Your task to perform on an android device: turn pop-ups off in chrome Image 0: 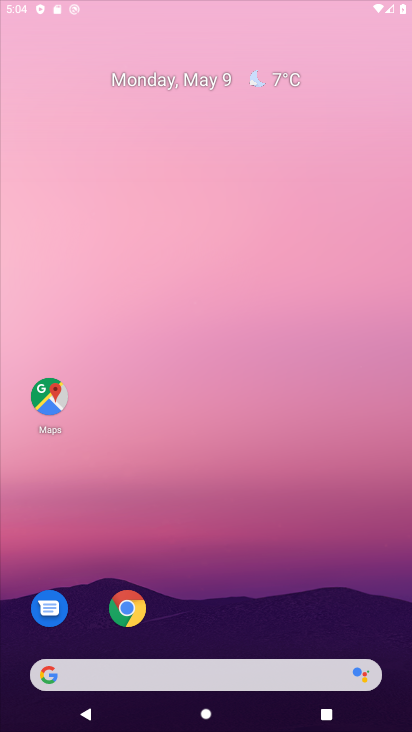
Step 0: click (129, 607)
Your task to perform on an android device: turn pop-ups off in chrome Image 1: 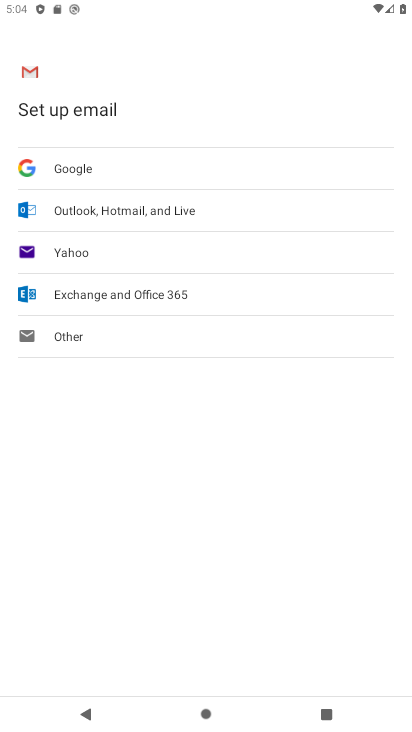
Step 1: press home button
Your task to perform on an android device: turn pop-ups off in chrome Image 2: 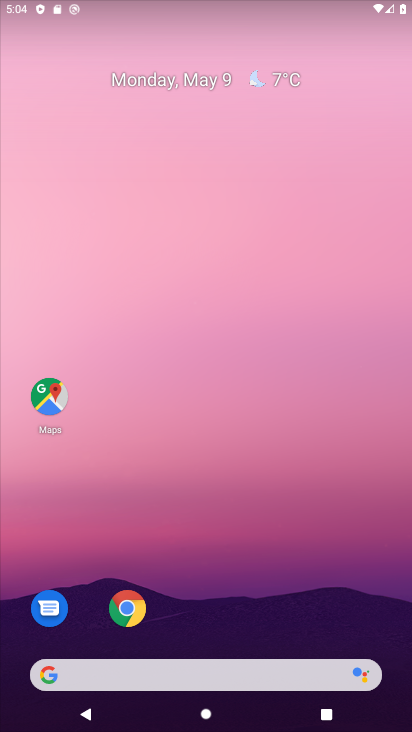
Step 2: click (126, 607)
Your task to perform on an android device: turn pop-ups off in chrome Image 3: 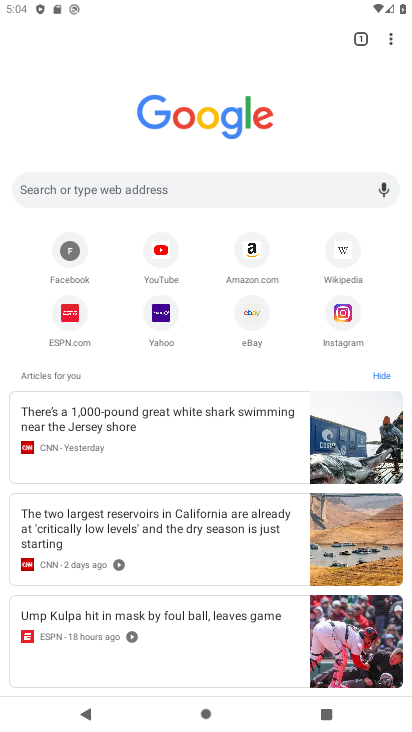
Step 3: click (377, 37)
Your task to perform on an android device: turn pop-ups off in chrome Image 4: 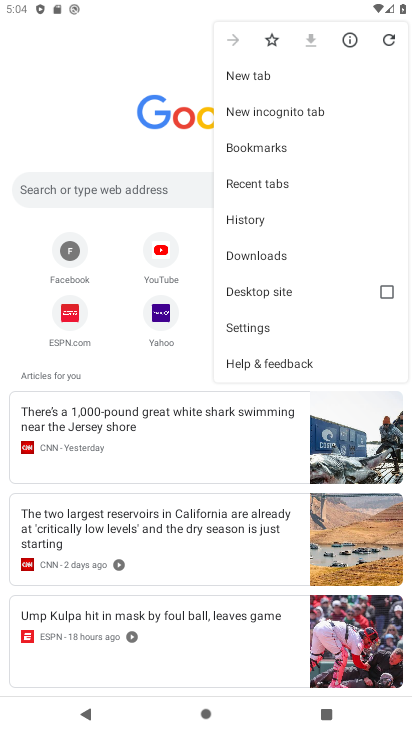
Step 4: click (284, 333)
Your task to perform on an android device: turn pop-ups off in chrome Image 5: 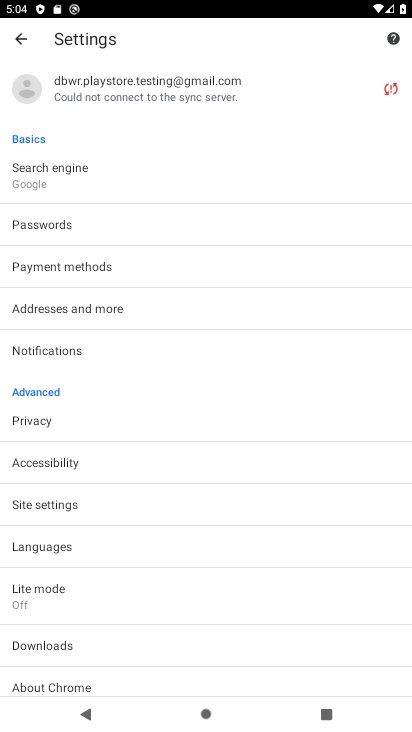
Step 5: click (55, 496)
Your task to perform on an android device: turn pop-ups off in chrome Image 6: 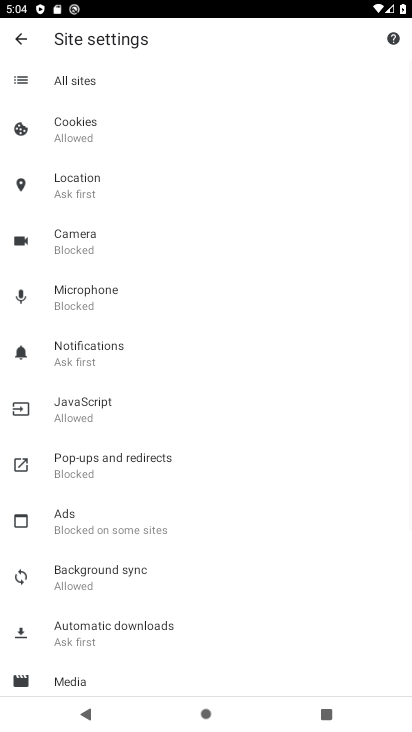
Step 6: click (109, 468)
Your task to perform on an android device: turn pop-ups off in chrome Image 7: 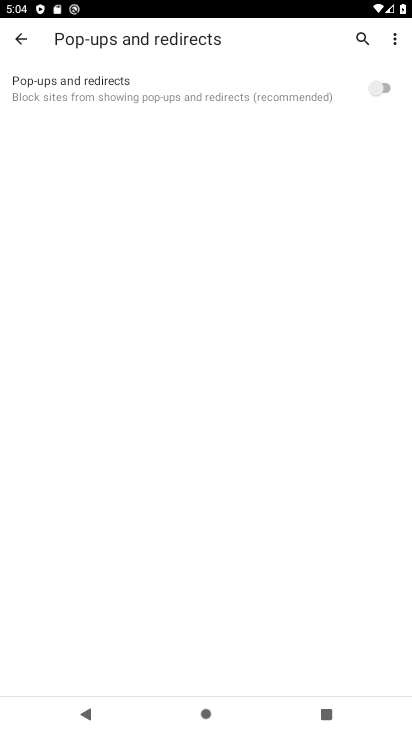
Step 7: task complete